Your task to perform on an android device: refresh tabs in the chrome app Image 0: 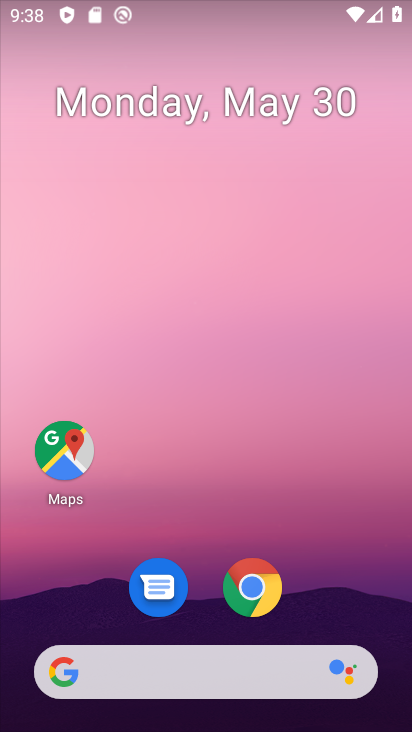
Step 0: drag from (335, 597) to (307, 17)
Your task to perform on an android device: refresh tabs in the chrome app Image 1: 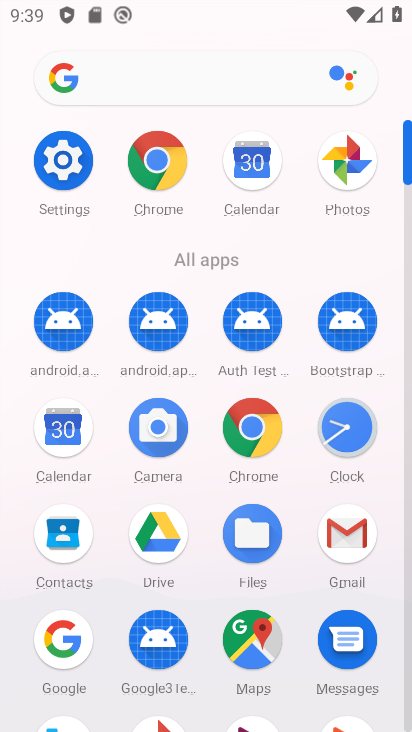
Step 1: click (156, 163)
Your task to perform on an android device: refresh tabs in the chrome app Image 2: 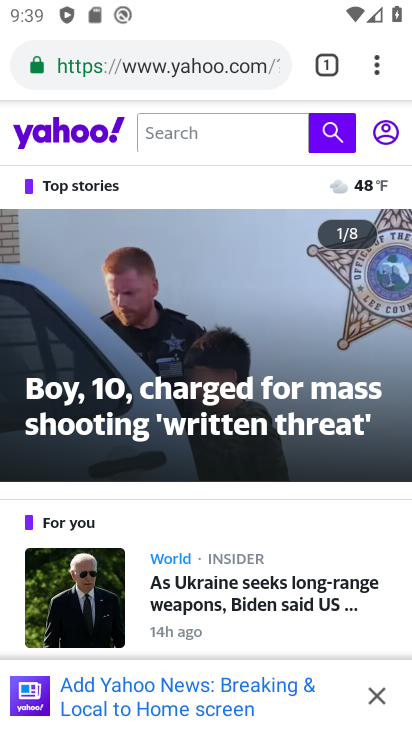
Step 2: task complete